Your task to perform on an android device: Open display settings Image 0: 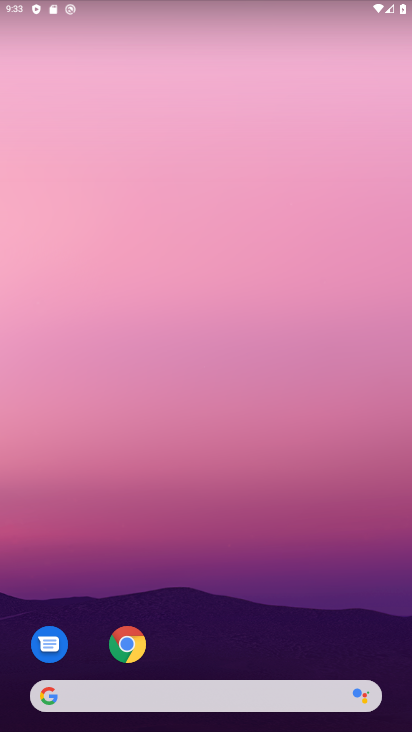
Step 0: drag from (282, 634) to (230, 87)
Your task to perform on an android device: Open display settings Image 1: 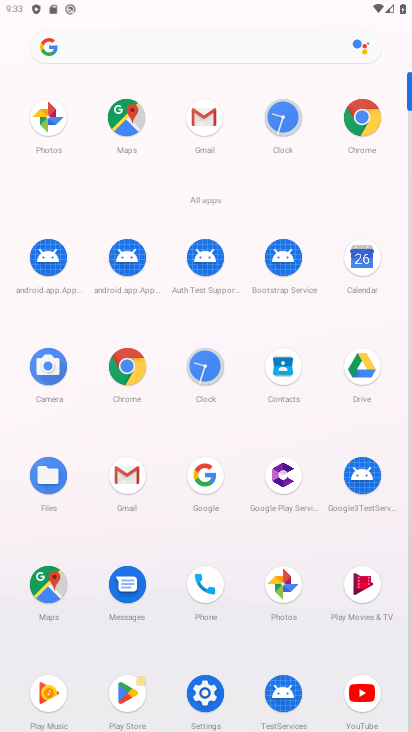
Step 1: click (210, 700)
Your task to perform on an android device: Open display settings Image 2: 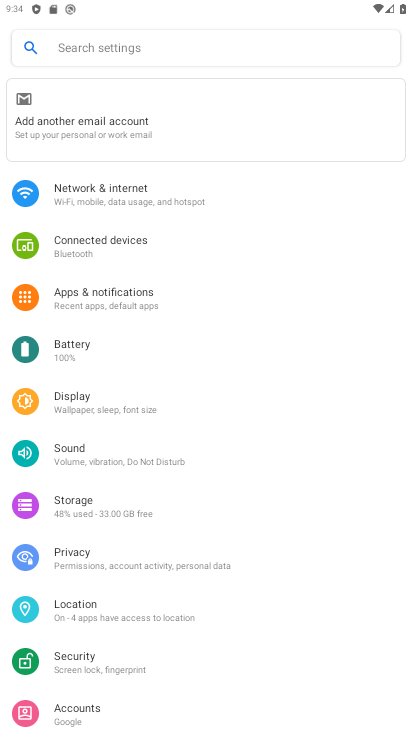
Step 2: click (151, 402)
Your task to perform on an android device: Open display settings Image 3: 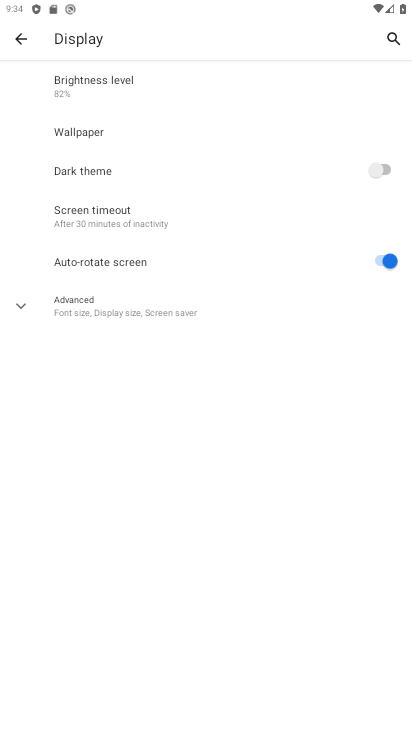
Step 3: task complete